Your task to perform on an android device: turn off notifications in google photos Image 0: 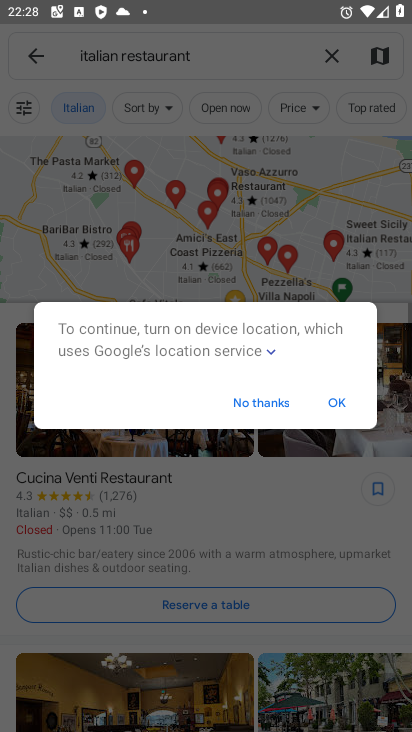
Step 0: press home button
Your task to perform on an android device: turn off notifications in google photos Image 1: 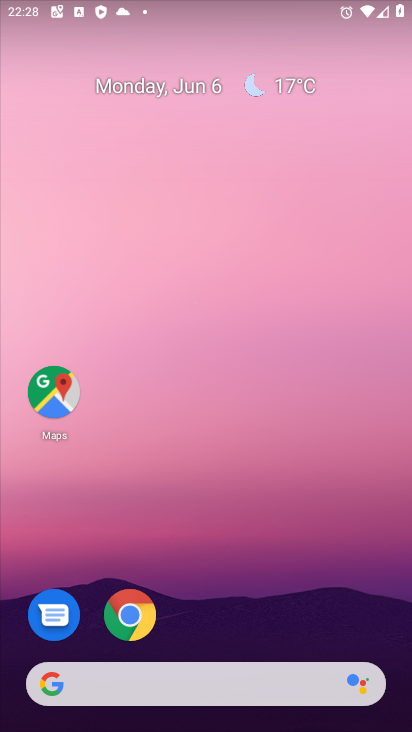
Step 1: drag from (373, 489) to (306, 147)
Your task to perform on an android device: turn off notifications in google photos Image 2: 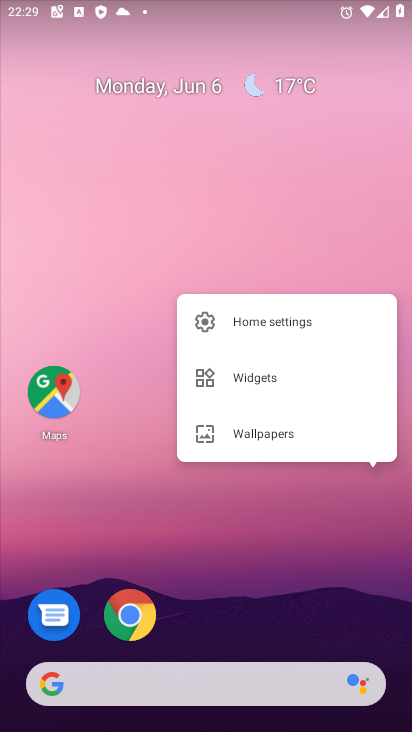
Step 2: drag from (385, 644) to (281, 137)
Your task to perform on an android device: turn off notifications in google photos Image 3: 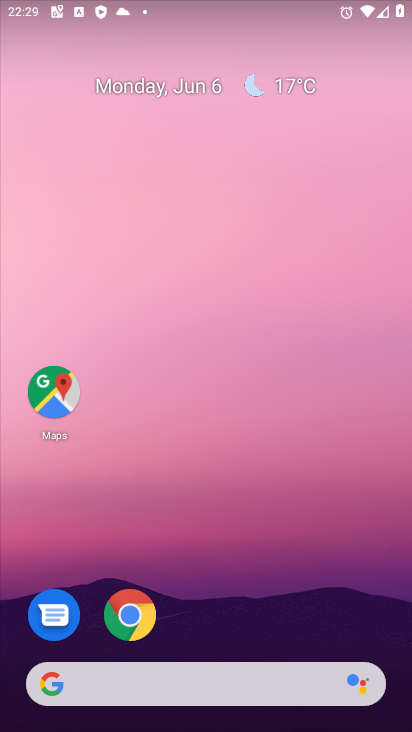
Step 3: drag from (394, 659) to (356, 212)
Your task to perform on an android device: turn off notifications in google photos Image 4: 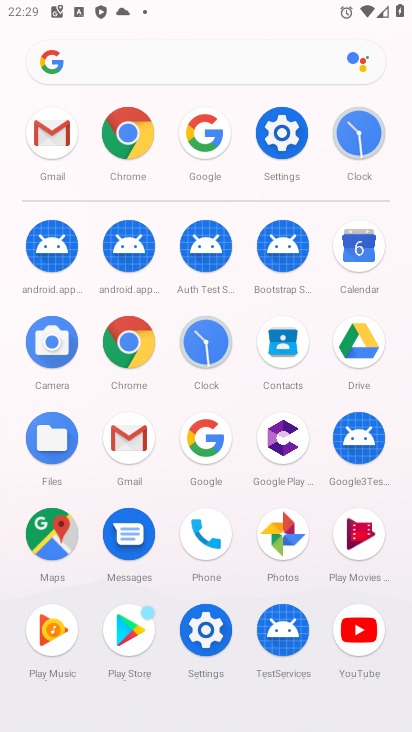
Step 4: click (288, 533)
Your task to perform on an android device: turn off notifications in google photos Image 5: 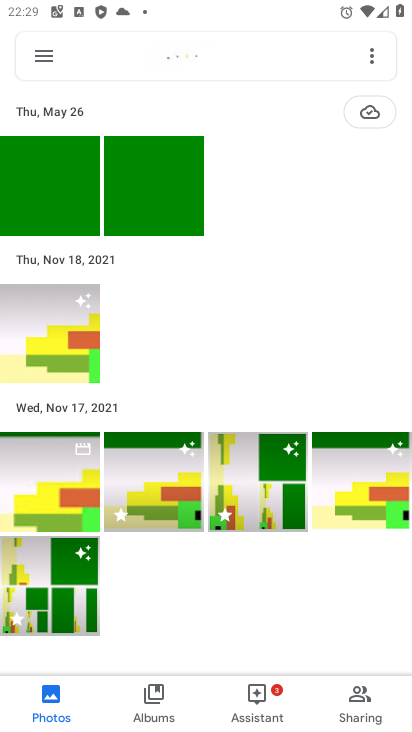
Step 5: click (43, 43)
Your task to perform on an android device: turn off notifications in google photos Image 6: 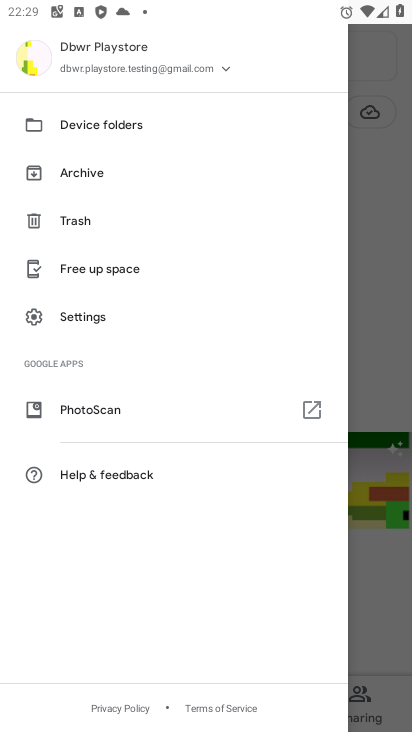
Step 6: click (66, 319)
Your task to perform on an android device: turn off notifications in google photos Image 7: 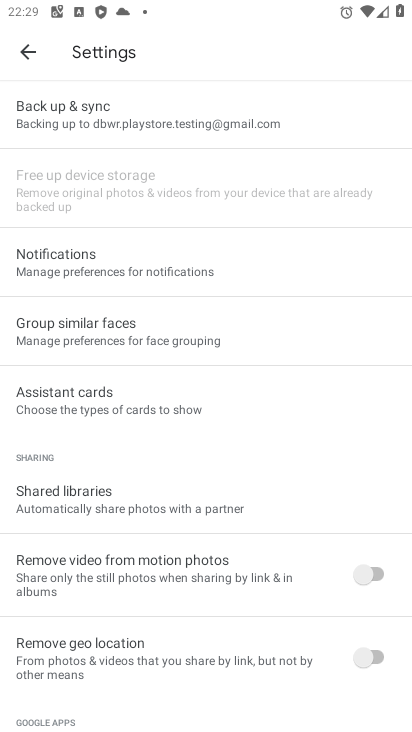
Step 7: click (56, 254)
Your task to perform on an android device: turn off notifications in google photos Image 8: 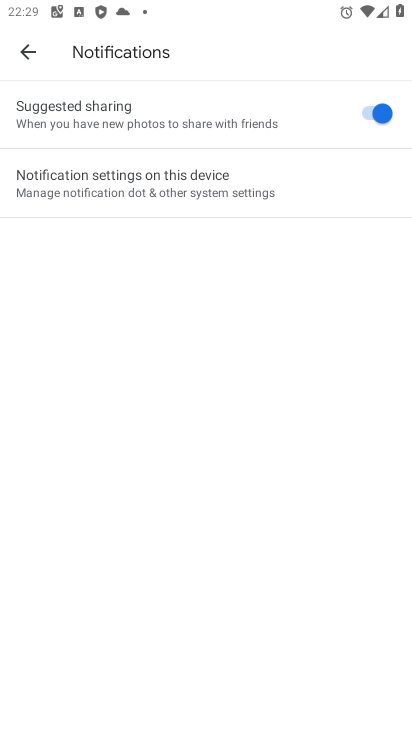
Step 8: click (367, 103)
Your task to perform on an android device: turn off notifications in google photos Image 9: 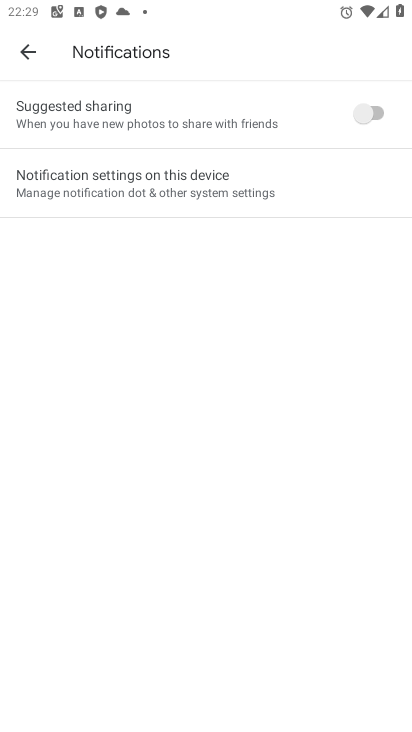
Step 9: task complete